Your task to perform on an android device: turn on notifications settings in the gmail app Image 0: 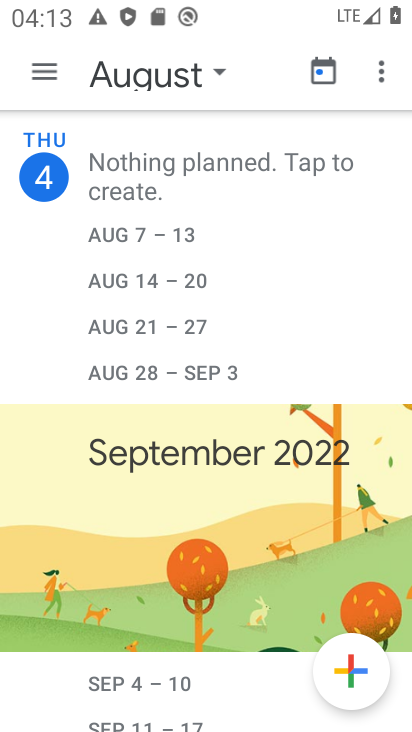
Step 0: press back button
Your task to perform on an android device: turn on notifications settings in the gmail app Image 1: 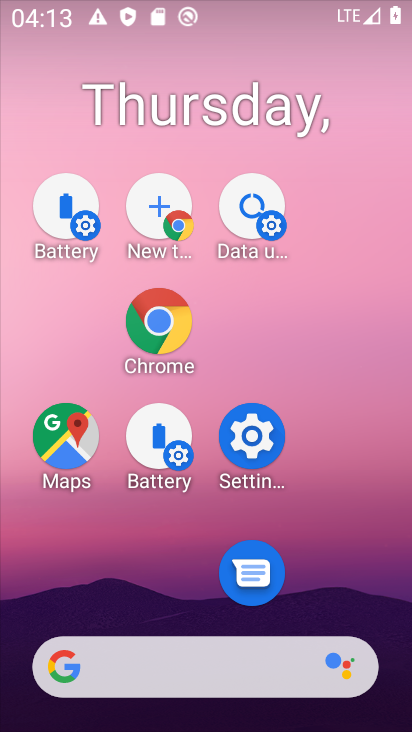
Step 1: drag from (211, 449) to (209, 137)
Your task to perform on an android device: turn on notifications settings in the gmail app Image 2: 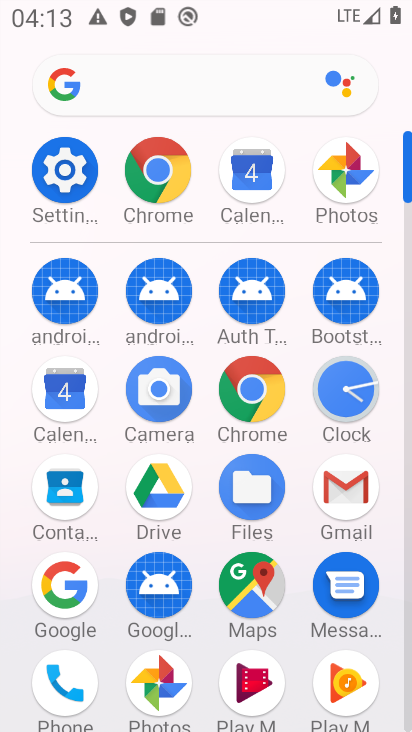
Step 2: click (357, 493)
Your task to perform on an android device: turn on notifications settings in the gmail app Image 3: 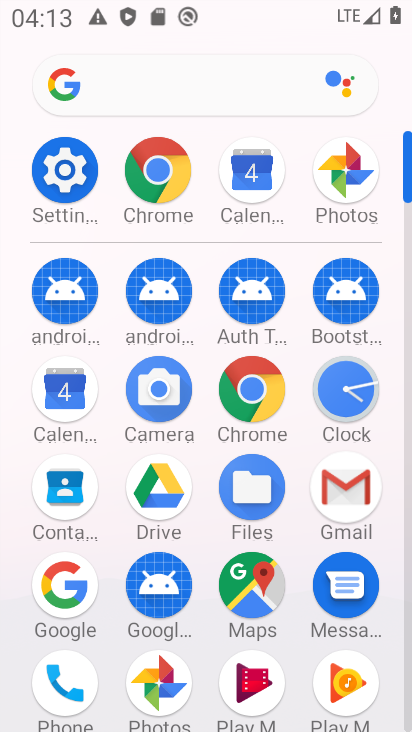
Step 3: click (353, 489)
Your task to perform on an android device: turn on notifications settings in the gmail app Image 4: 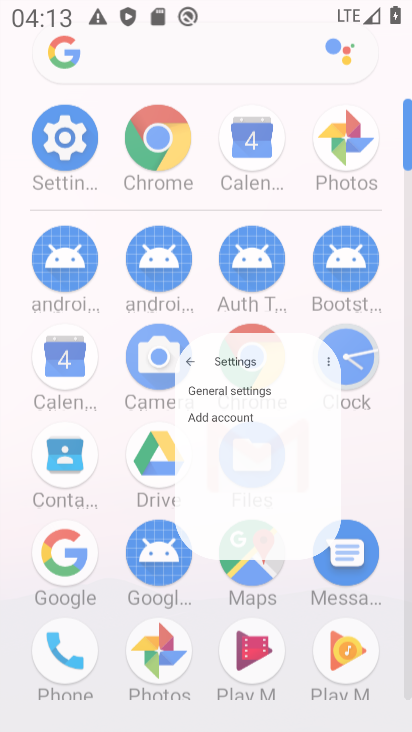
Step 4: click (353, 488)
Your task to perform on an android device: turn on notifications settings in the gmail app Image 5: 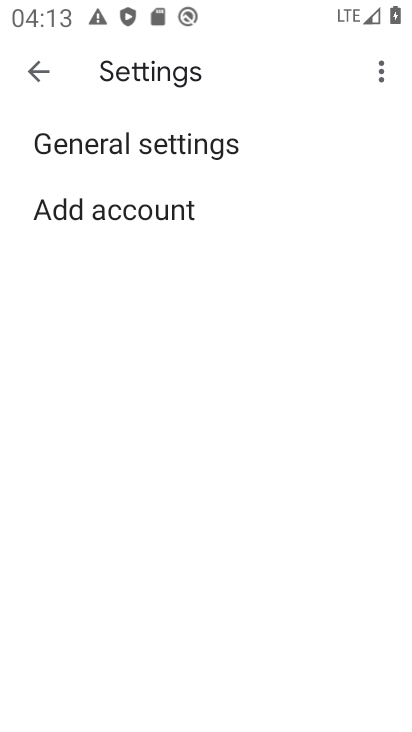
Step 5: click (351, 488)
Your task to perform on an android device: turn on notifications settings in the gmail app Image 6: 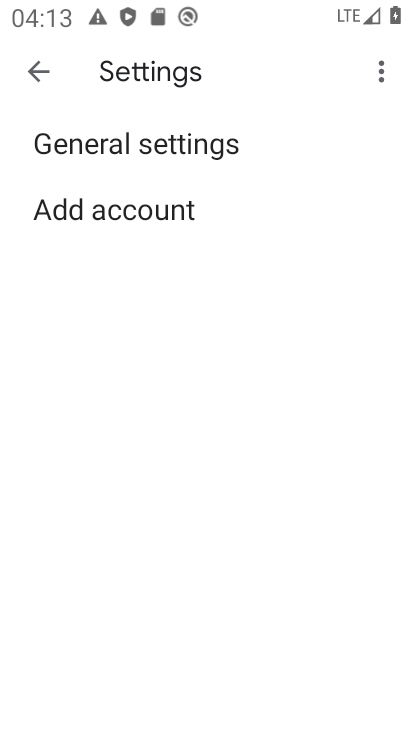
Step 6: click (43, 67)
Your task to perform on an android device: turn on notifications settings in the gmail app Image 7: 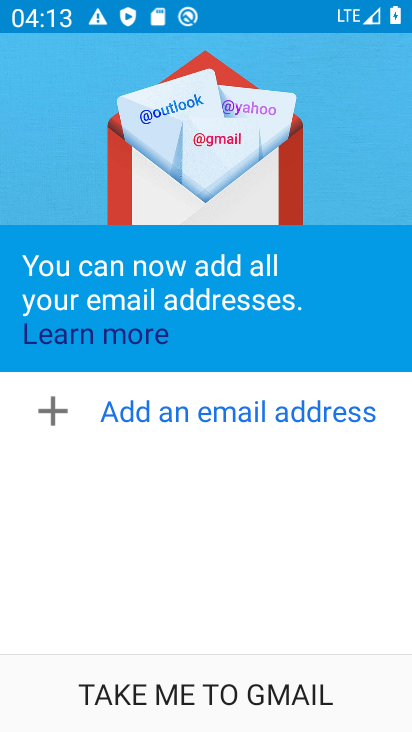
Step 7: click (206, 687)
Your task to perform on an android device: turn on notifications settings in the gmail app Image 8: 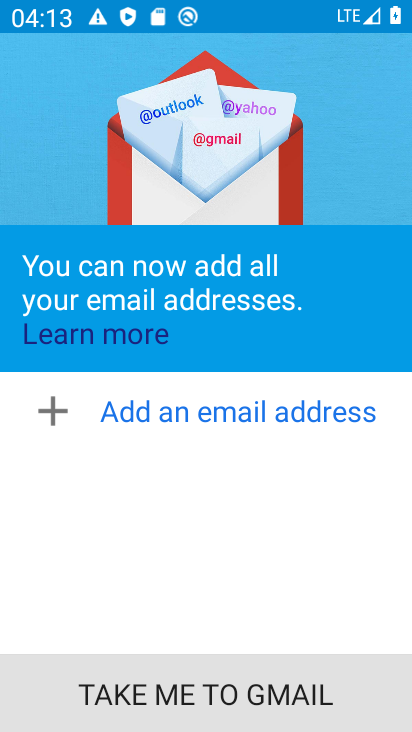
Step 8: click (207, 687)
Your task to perform on an android device: turn on notifications settings in the gmail app Image 9: 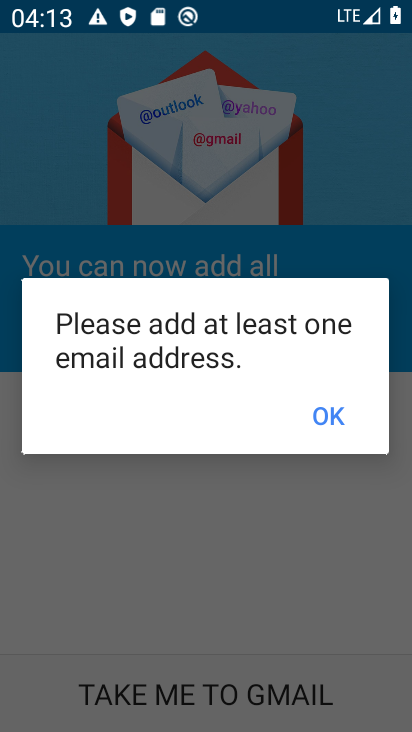
Step 9: click (338, 410)
Your task to perform on an android device: turn on notifications settings in the gmail app Image 10: 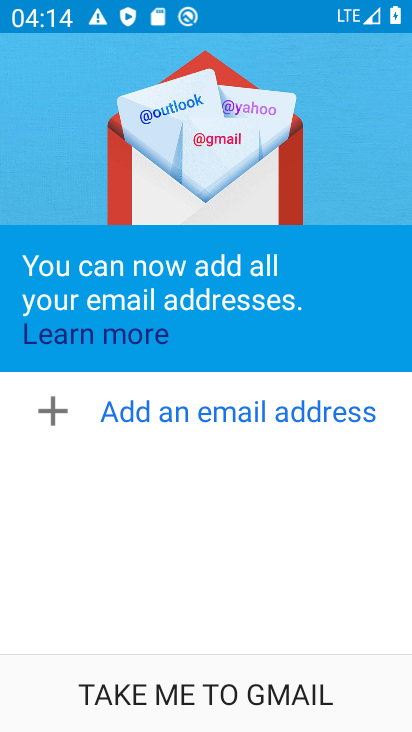
Step 10: task complete